Your task to perform on an android device: delete the emails in spam in the gmail app Image 0: 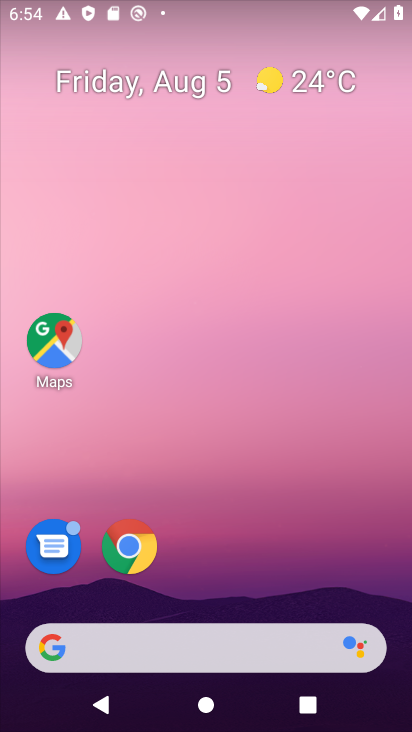
Step 0: drag from (203, 586) to (233, 106)
Your task to perform on an android device: delete the emails in spam in the gmail app Image 1: 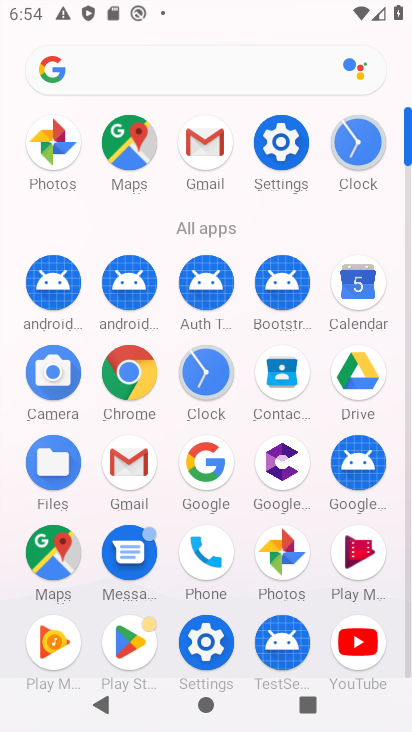
Step 1: click (132, 462)
Your task to perform on an android device: delete the emails in spam in the gmail app Image 2: 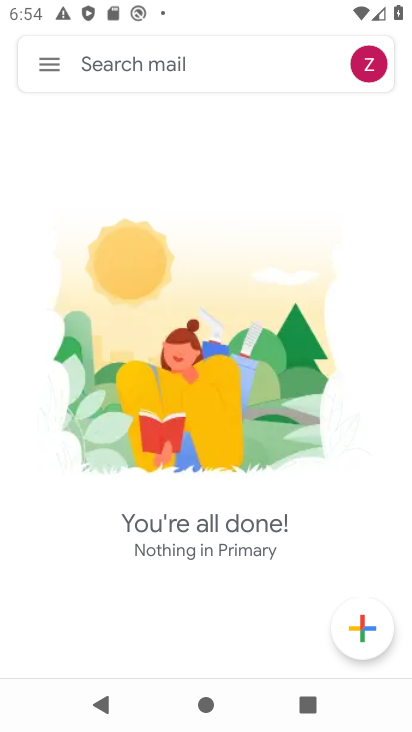
Step 2: drag from (222, 531) to (230, 306)
Your task to perform on an android device: delete the emails in spam in the gmail app Image 3: 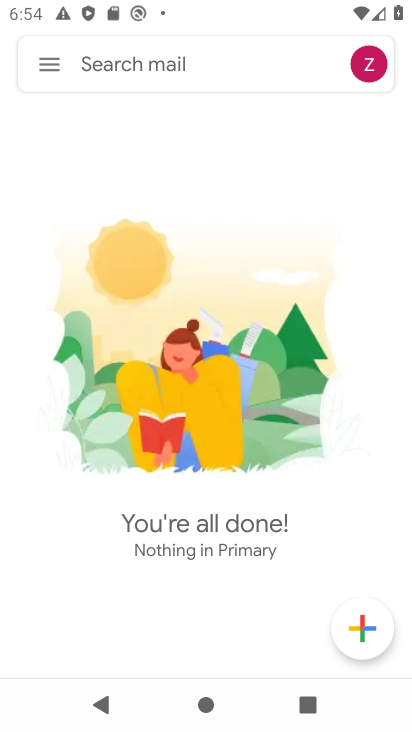
Step 3: click (56, 66)
Your task to perform on an android device: delete the emails in spam in the gmail app Image 4: 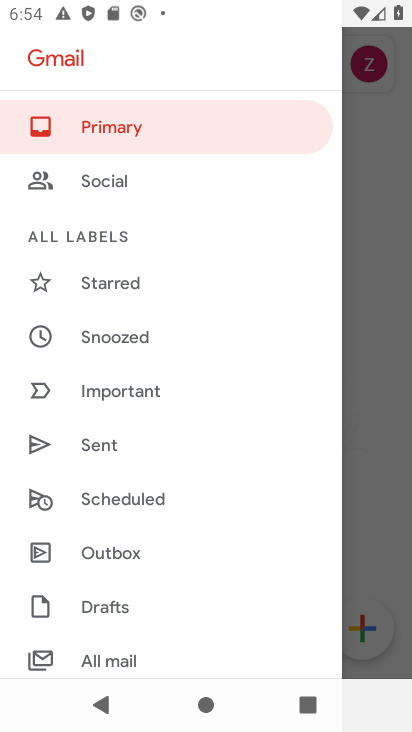
Step 4: drag from (106, 529) to (177, 188)
Your task to perform on an android device: delete the emails in spam in the gmail app Image 5: 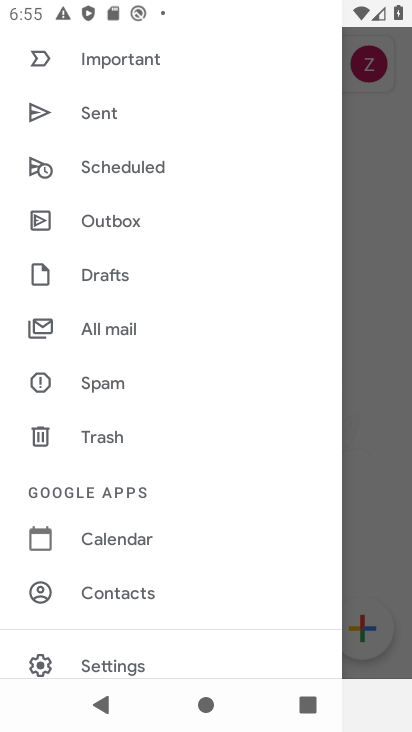
Step 5: click (122, 400)
Your task to perform on an android device: delete the emails in spam in the gmail app Image 6: 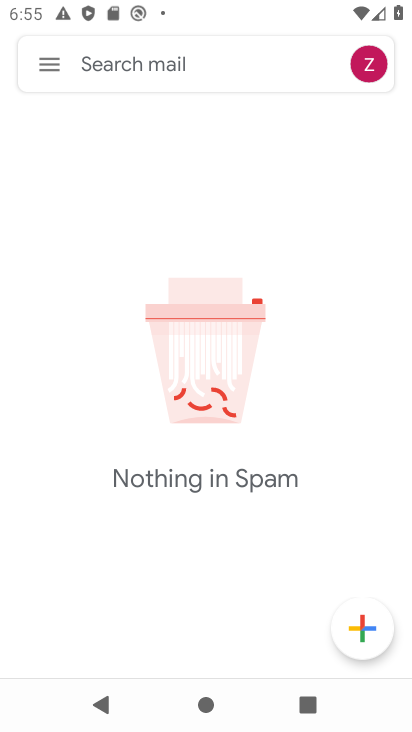
Step 6: task complete